Your task to perform on an android device: Go to Google maps Image 0: 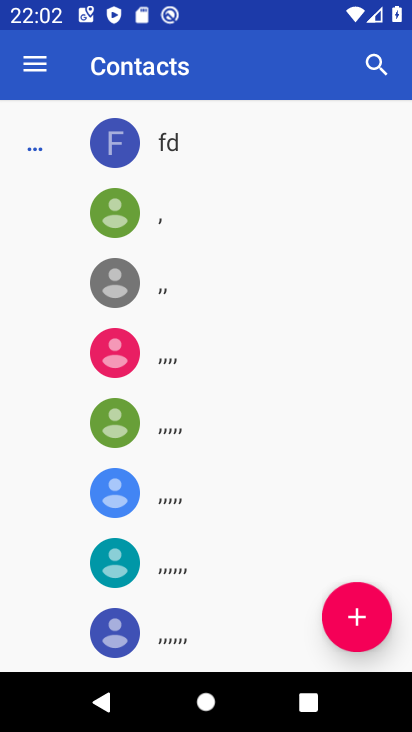
Step 0: press home button
Your task to perform on an android device: Go to Google maps Image 1: 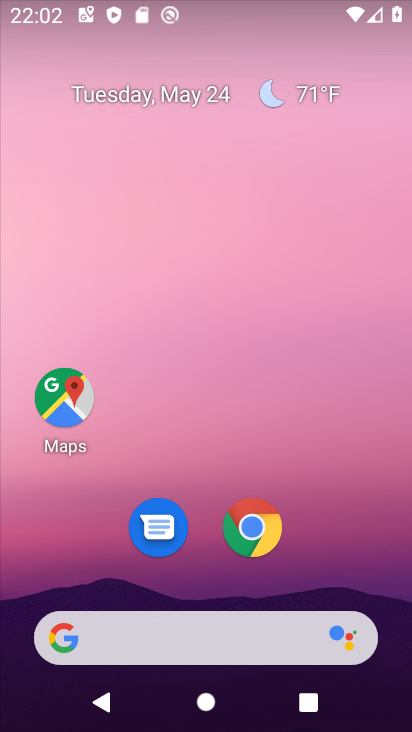
Step 1: drag from (192, 544) to (192, 94)
Your task to perform on an android device: Go to Google maps Image 2: 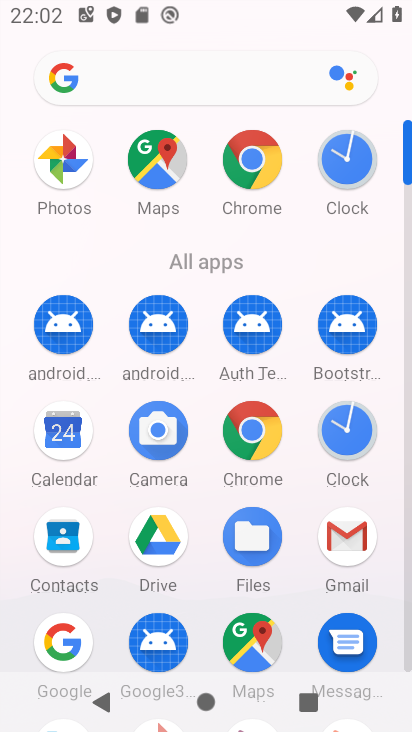
Step 2: click (246, 632)
Your task to perform on an android device: Go to Google maps Image 3: 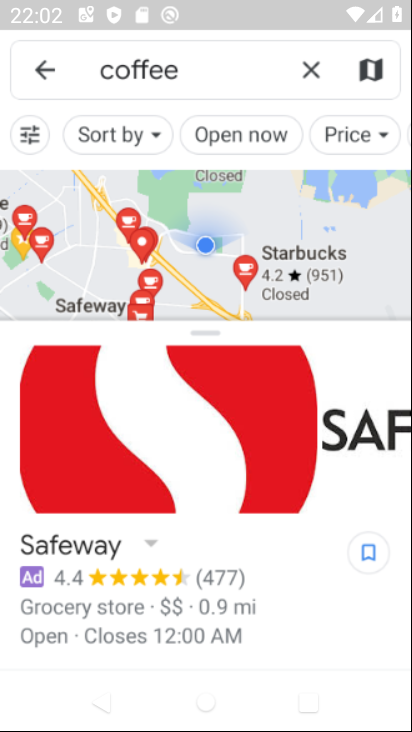
Step 3: click (45, 63)
Your task to perform on an android device: Go to Google maps Image 4: 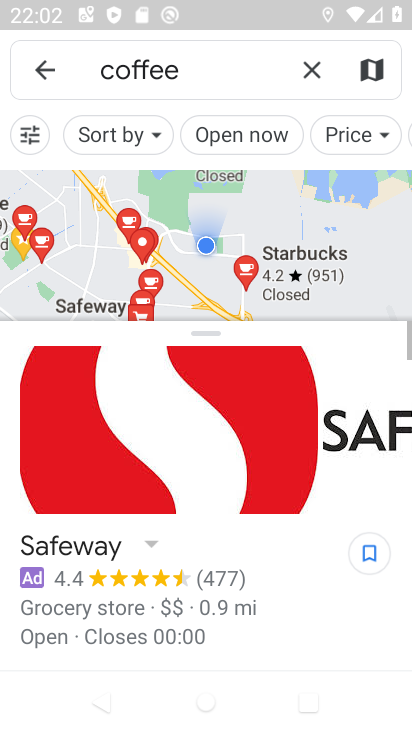
Step 4: click (51, 71)
Your task to perform on an android device: Go to Google maps Image 5: 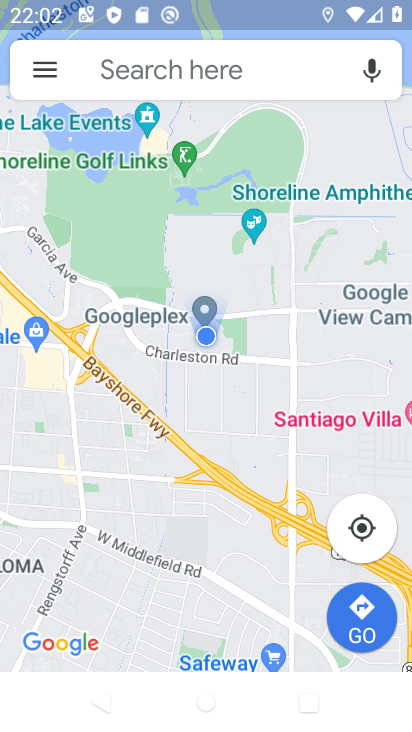
Step 5: task complete